Your task to perform on an android device: When is my next appointment? Image 0: 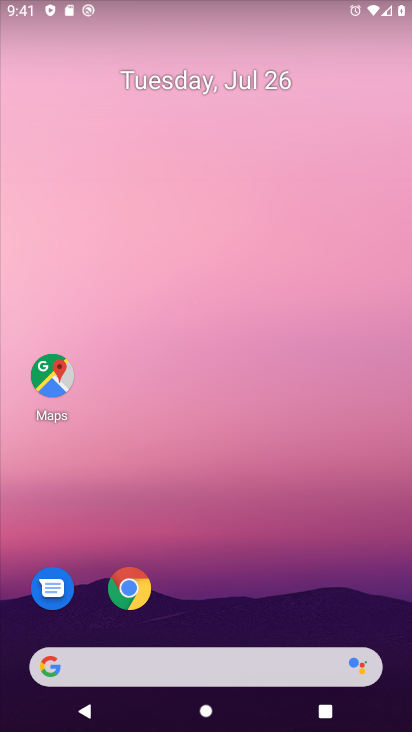
Step 0: drag from (149, 604) to (307, 48)
Your task to perform on an android device: When is my next appointment? Image 1: 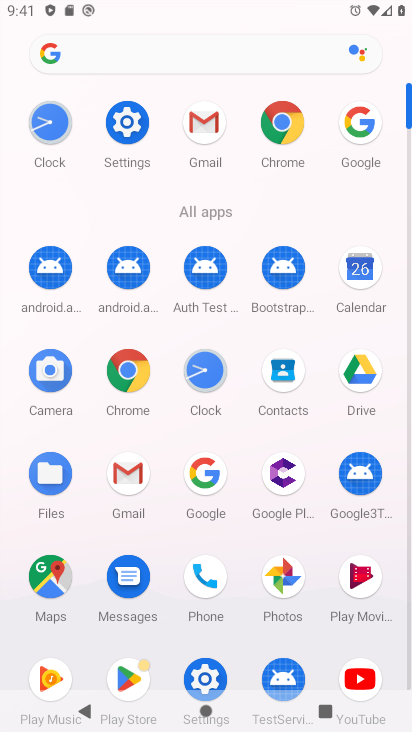
Step 1: click (371, 275)
Your task to perform on an android device: When is my next appointment? Image 2: 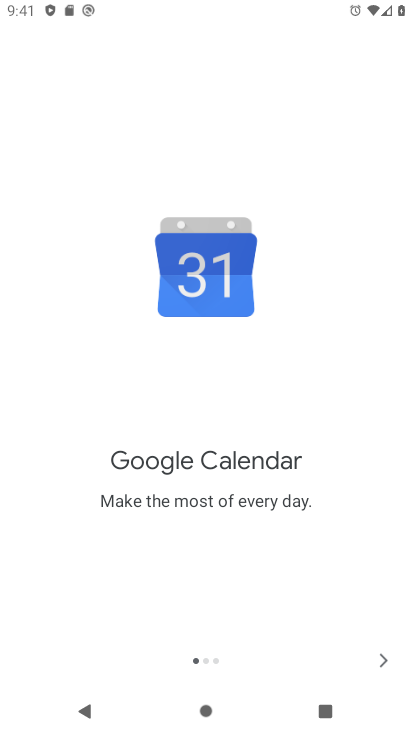
Step 2: click (396, 657)
Your task to perform on an android device: When is my next appointment? Image 3: 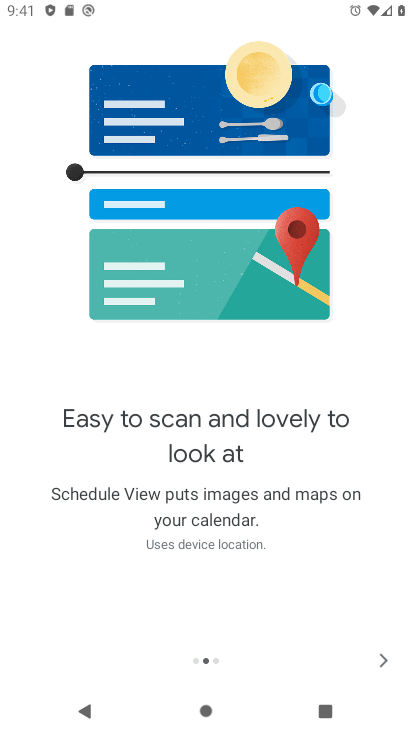
Step 3: click (380, 643)
Your task to perform on an android device: When is my next appointment? Image 4: 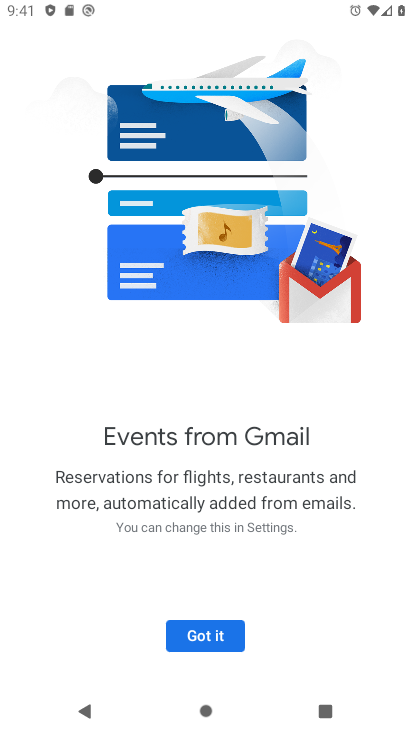
Step 4: click (223, 638)
Your task to perform on an android device: When is my next appointment? Image 5: 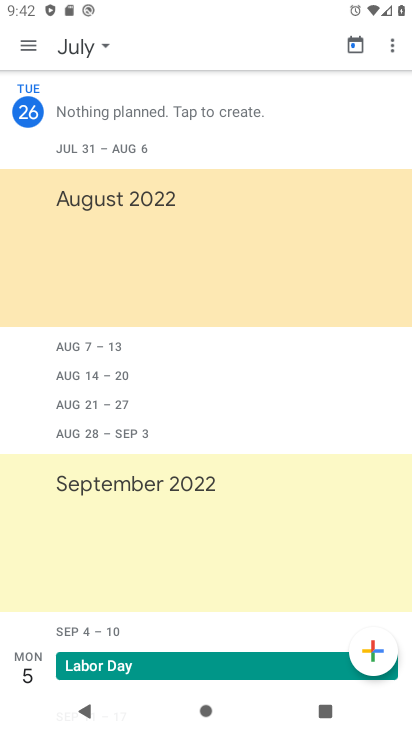
Step 5: task complete